Your task to perform on an android device: check android version Image 0: 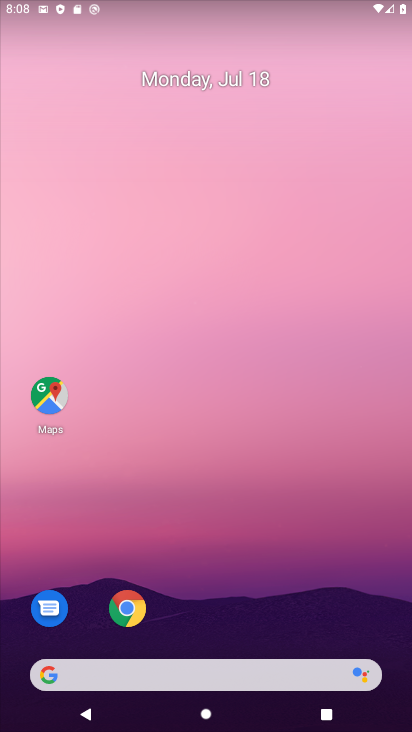
Step 0: drag from (260, 581) to (177, 48)
Your task to perform on an android device: check android version Image 1: 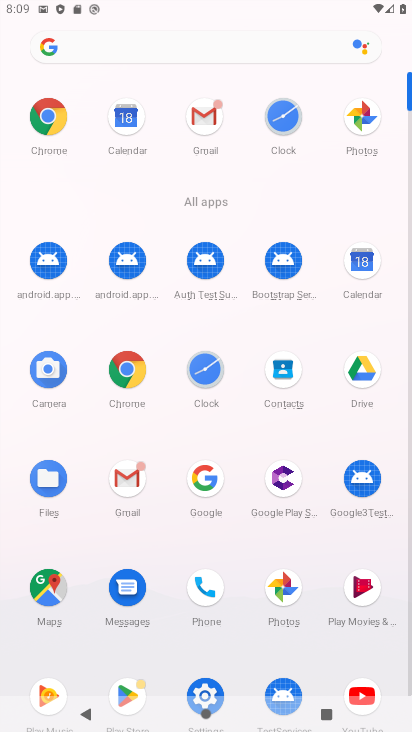
Step 1: click (205, 686)
Your task to perform on an android device: check android version Image 2: 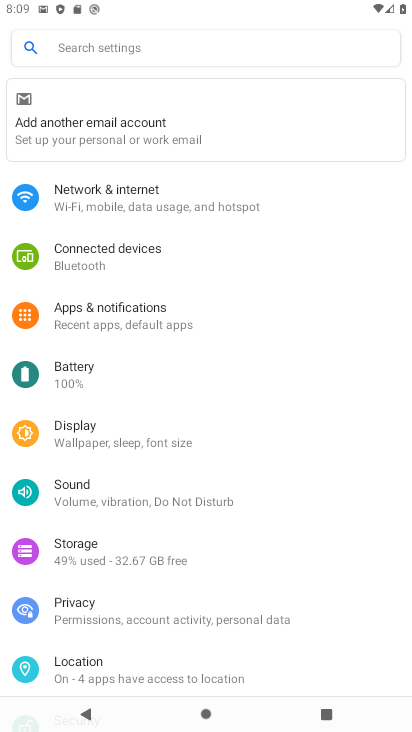
Step 2: drag from (154, 668) to (137, 368)
Your task to perform on an android device: check android version Image 3: 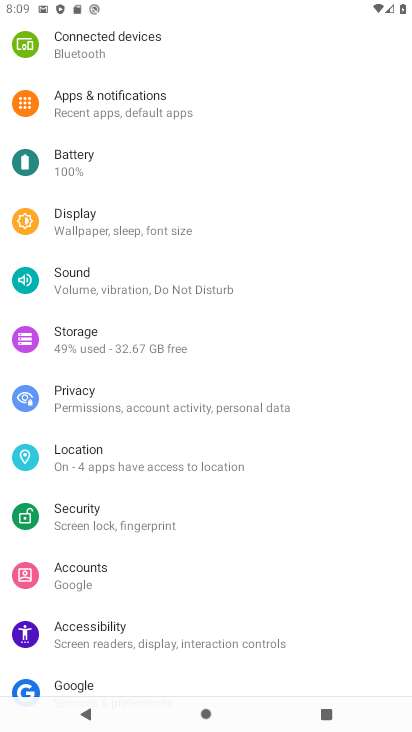
Step 3: drag from (182, 651) to (183, 284)
Your task to perform on an android device: check android version Image 4: 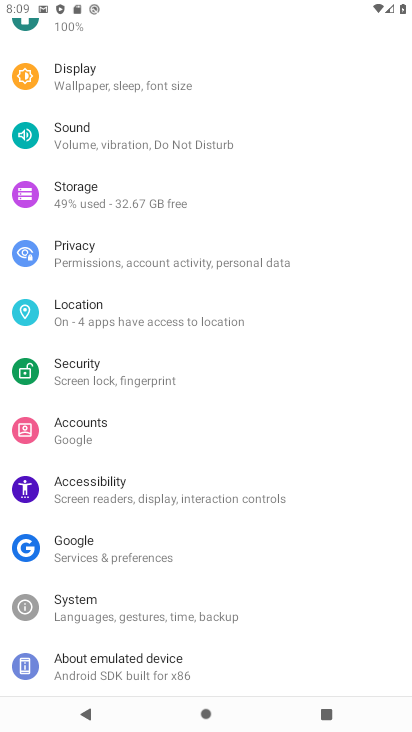
Step 4: click (153, 661)
Your task to perform on an android device: check android version Image 5: 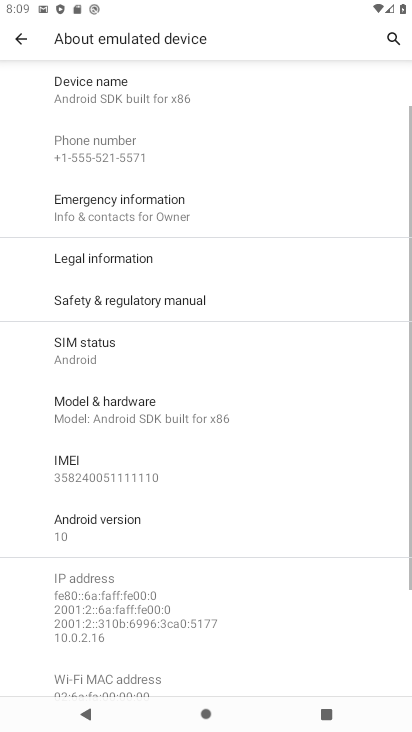
Step 5: click (157, 522)
Your task to perform on an android device: check android version Image 6: 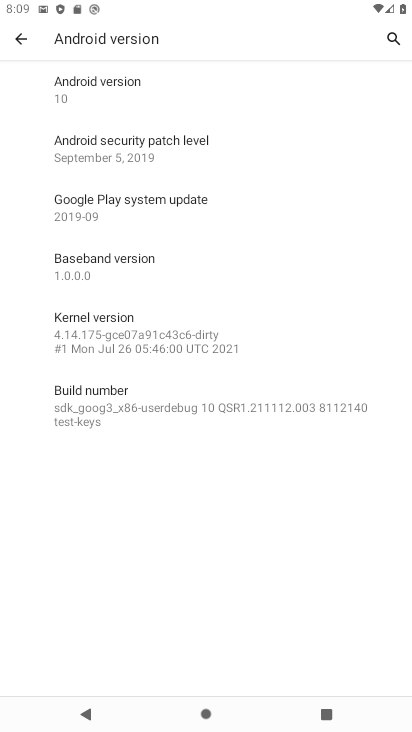
Step 6: task complete